Your task to perform on an android device: manage bookmarks in the chrome app Image 0: 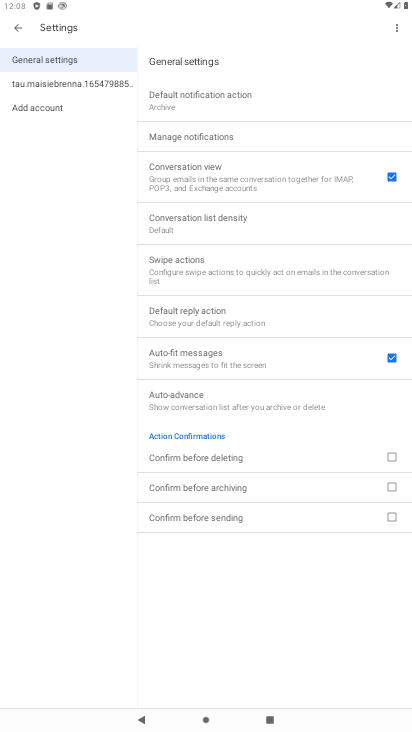
Step 0: press home button
Your task to perform on an android device: manage bookmarks in the chrome app Image 1: 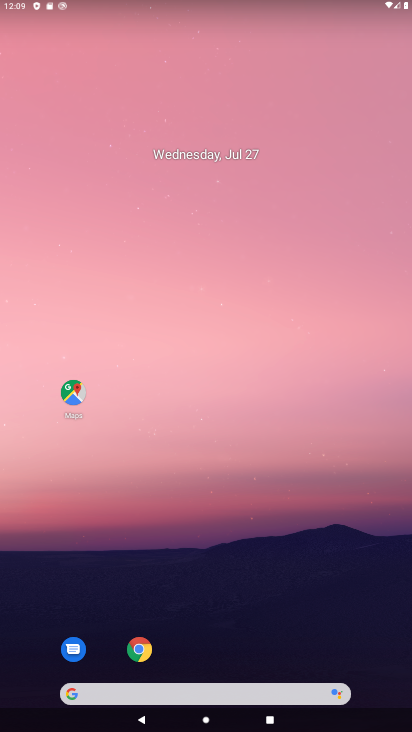
Step 1: click (140, 653)
Your task to perform on an android device: manage bookmarks in the chrome app Image 2: 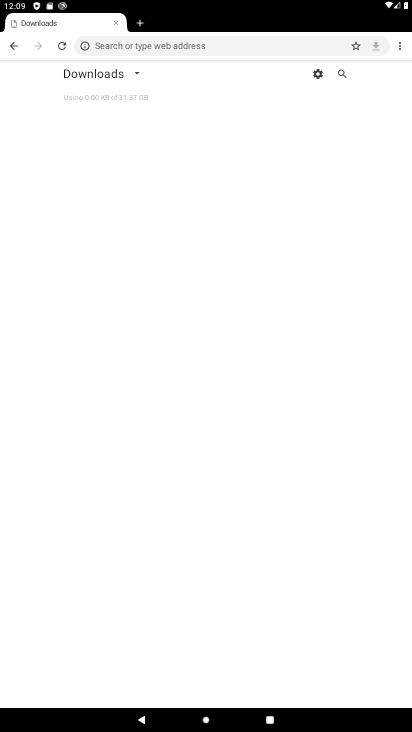
Step 2: click (397, 44)
Your task to perform on an android device: manage bookmarks in the chrome app Image 3: 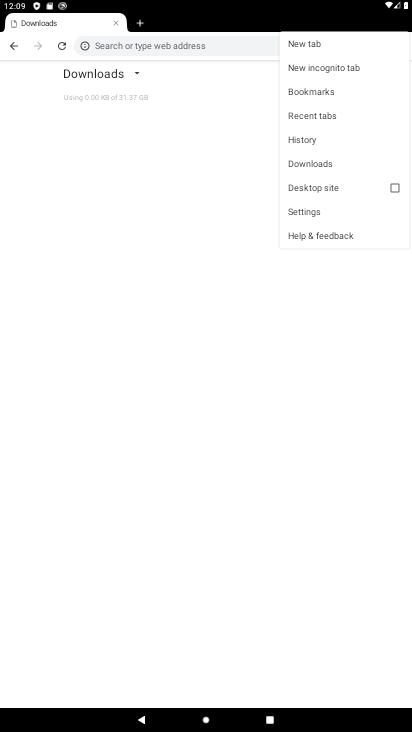
Step 3: click (304, 85)
Your task to perform on an android device: manage bookmarks in the chrome app Image 4: 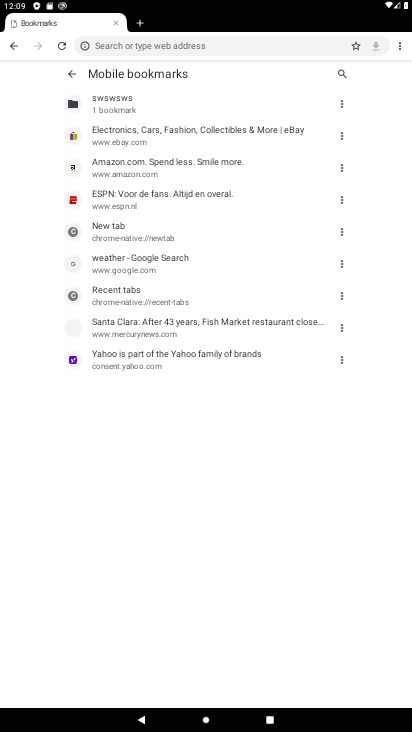
Step 4: click (341, 103)
Your task to perform on an android device: manage bookmarks in the chrome app Image 5: 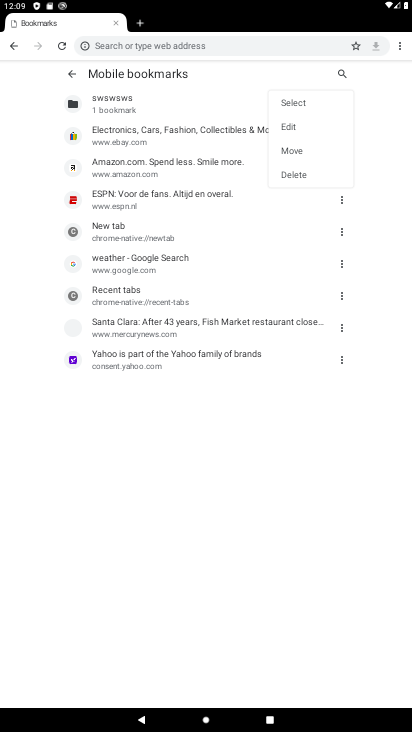
Step 5: click (285, 125)
Your task to perform on an android device: manage bookmarks in the chrome app Image 6: 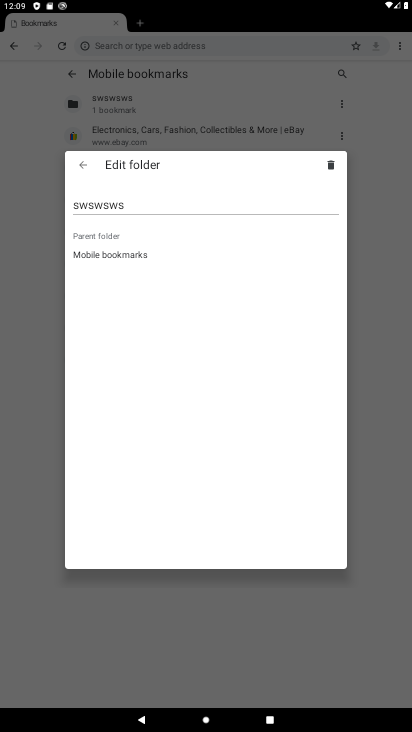
Step 6: task complete